Your task to perform on an android device: Go to Reddit.com Image 0: 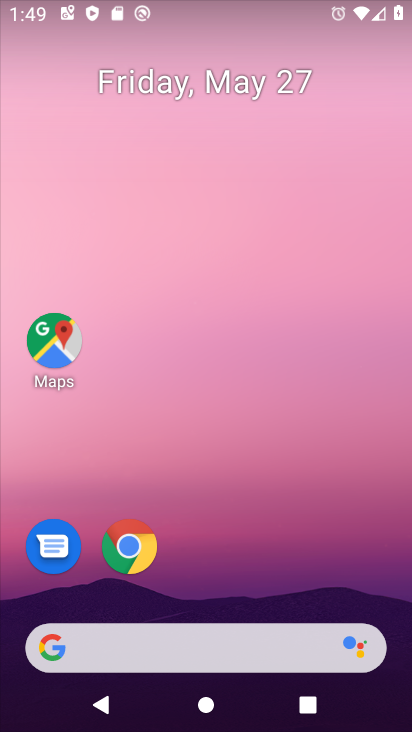
Step 0: drag from (230, 677) to (231, 196)
Your task to perform on an android device: Go to Reddit.com Image 1: 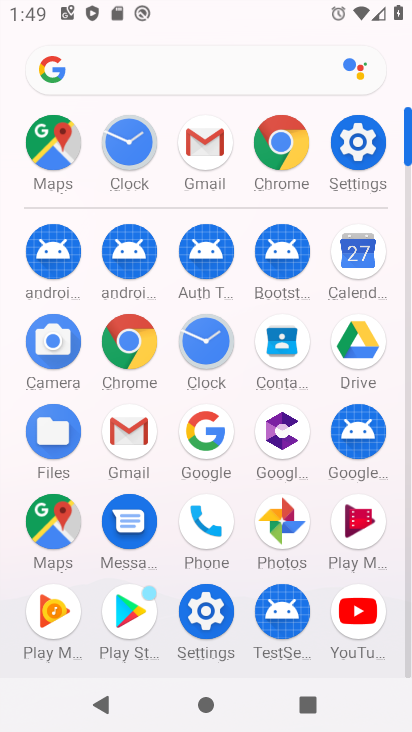
Step 1: click (267, 139)
Your task to perform on an android device: Go to Reddit.com Image 2: 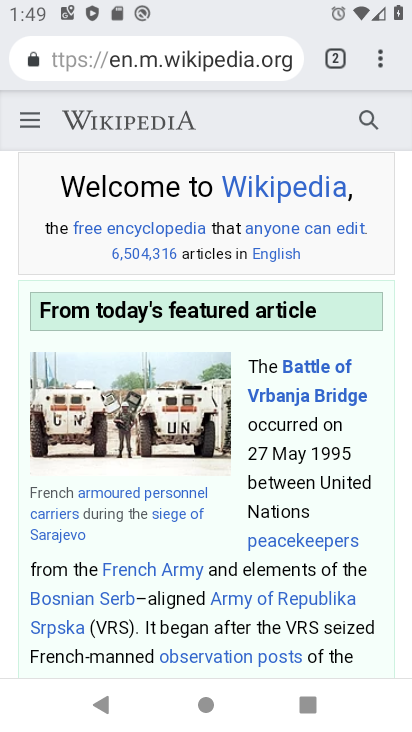
Step 2: click (208, 78)
Your task to perform on an android device: Go to Reddit.com Image 3: 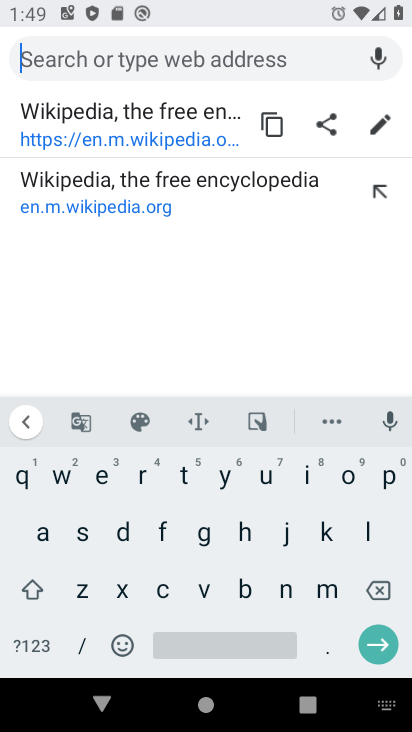
Step 3: click (147, 477)
Your task to perform on an android device: Go to Reddit.com Image 4: 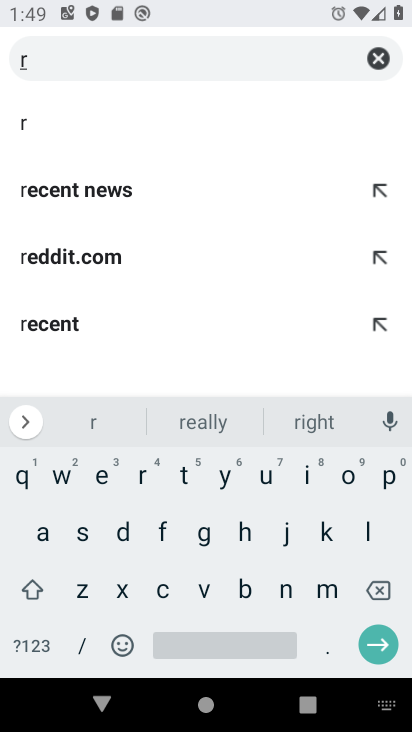
Step 4: click (129, 261)
Your task to perform on an android device: Go to Reddit.com Image 5: 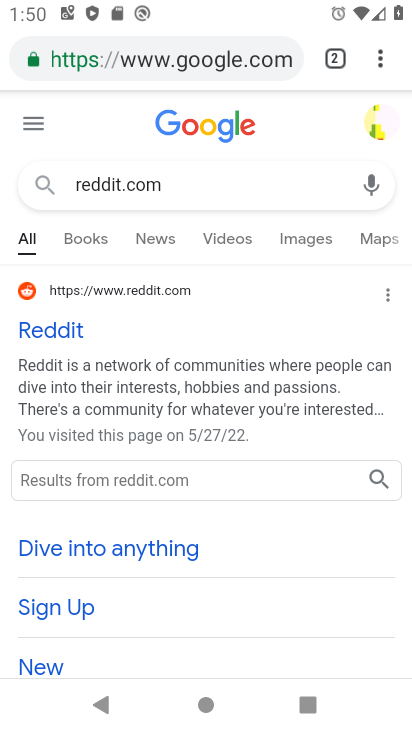
Step 5: click (62, 329)
Your task to perform on an android device: Go to Reddit.com Image 6: 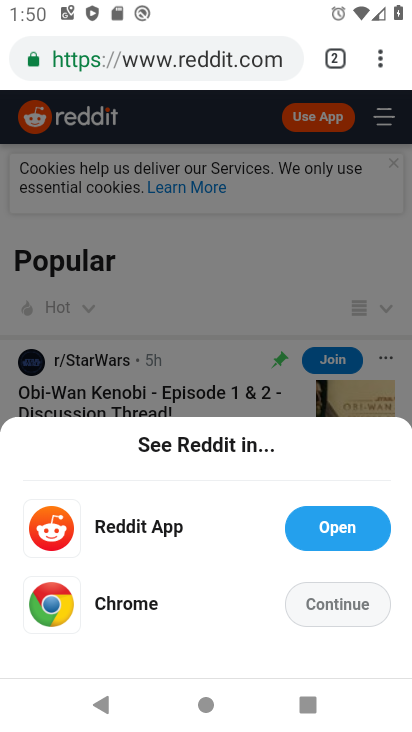
Step 6: task complete